Your task to perform on an android device: remove spam from my inbox in the gmail app Image 0: 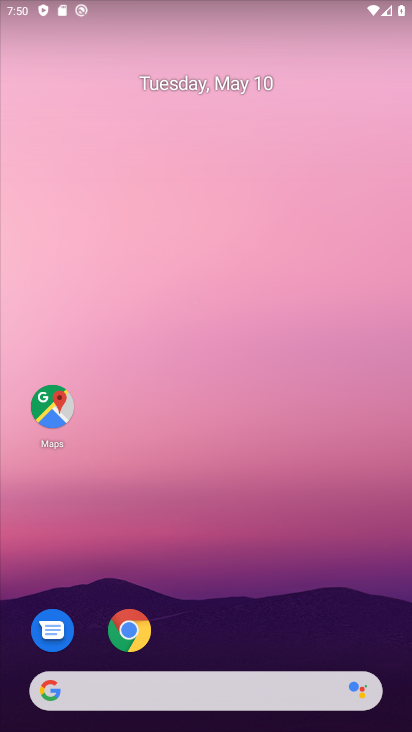
Step 0: drag from (210, 576) to (203, 25)
Your task to perform on an android device: remove spam from my inbox in the gmail app Image 1: 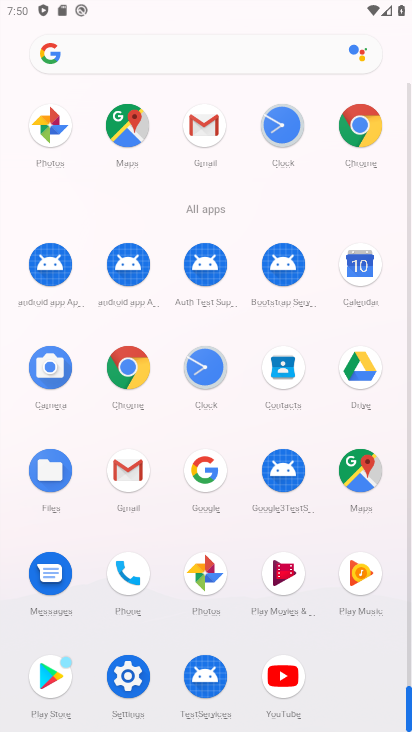
Step 1: click (128, 468)
Your task to perform on an android device: remove spam from my inbox in the gmail app Image 2: 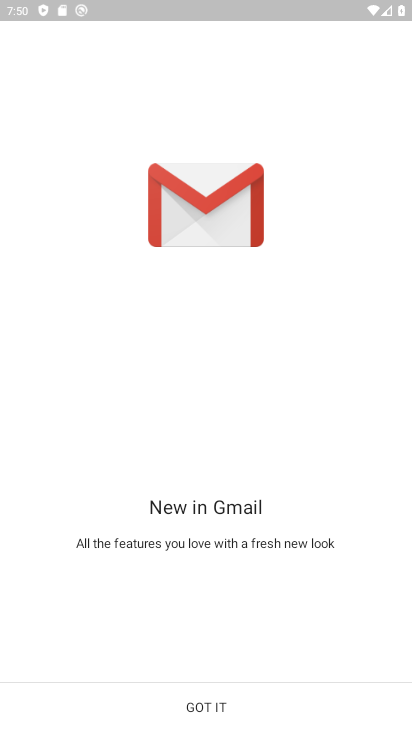
Step 2: click (223, 701)
Your task to perform on an android device: remove spam from my inbox in the gmail app Image 3: 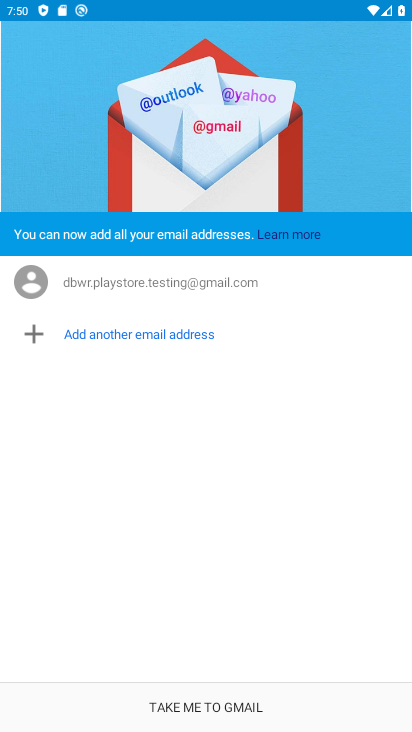
Step 3: click (190, 698)
Your task to perform on an android device: remove spam from my inbox in the gmail app Image 4: 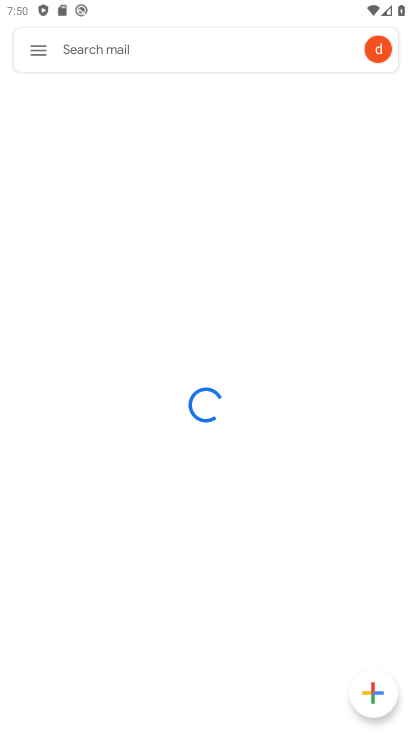
Step 4: click (34, 40)
Your task to perform on an android device: remove spam from my inbox in the gmail app Image 5: 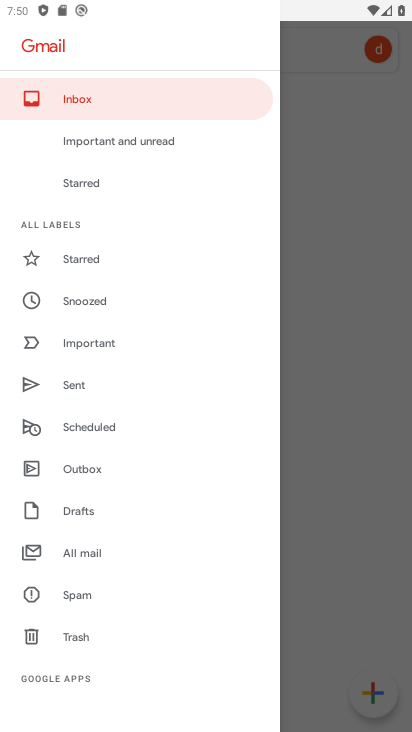
Step 5: click (100, 591)
Your task to perform on an android device: remove spam from my inbox in the gmail app Image 6: 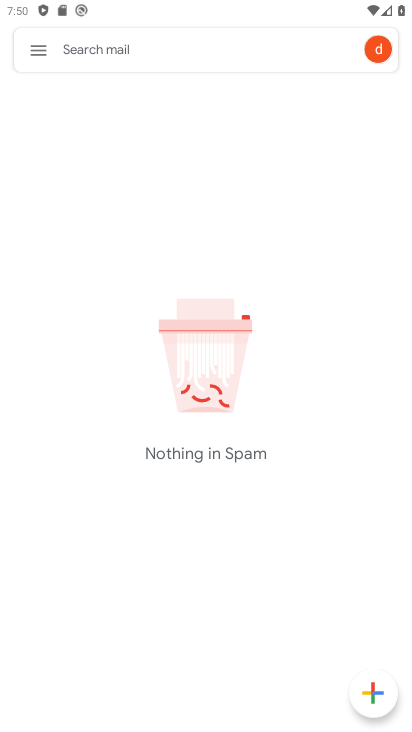
Step 6: task complete